Your task to perform on an android device: toggle improve location accuracy Image 0: 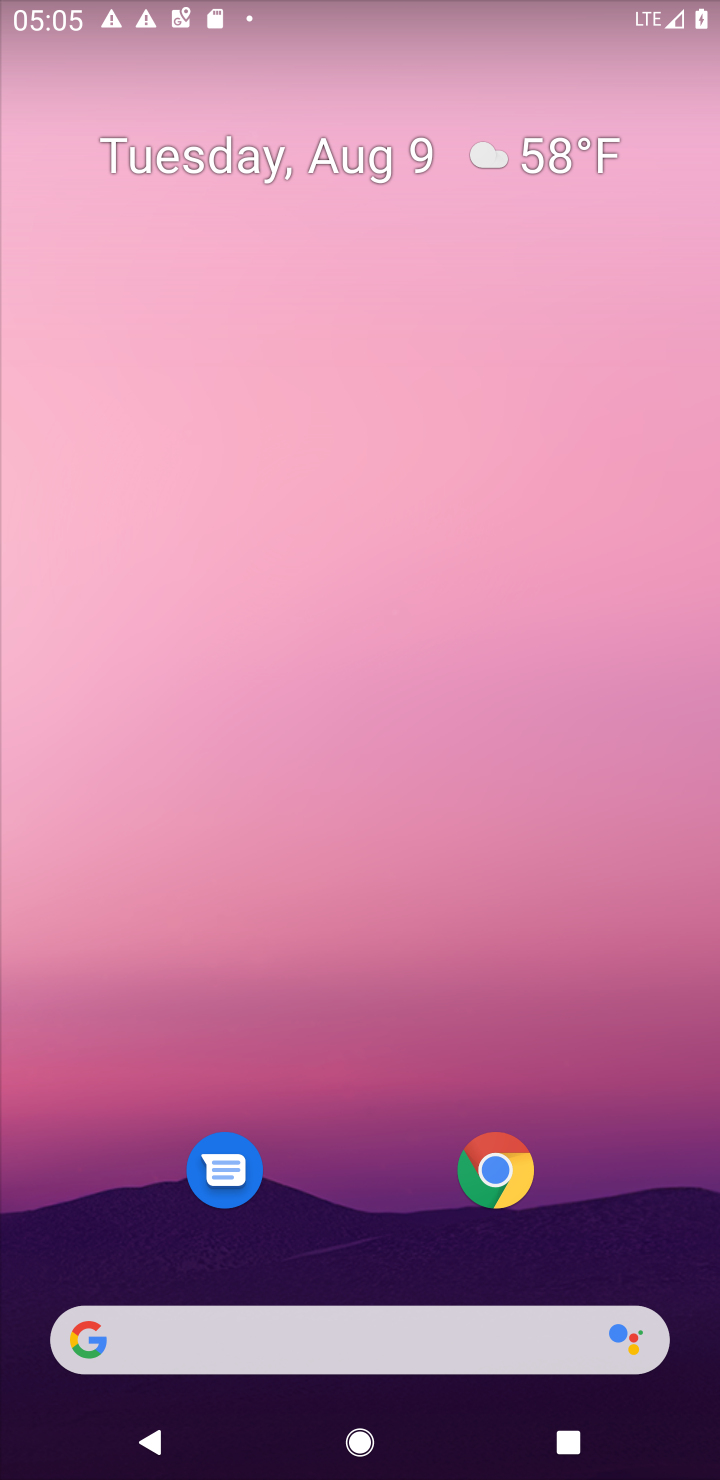
Step 0: press home button
Your task to perform on an android device: toggle improve location accuracy Image 1: 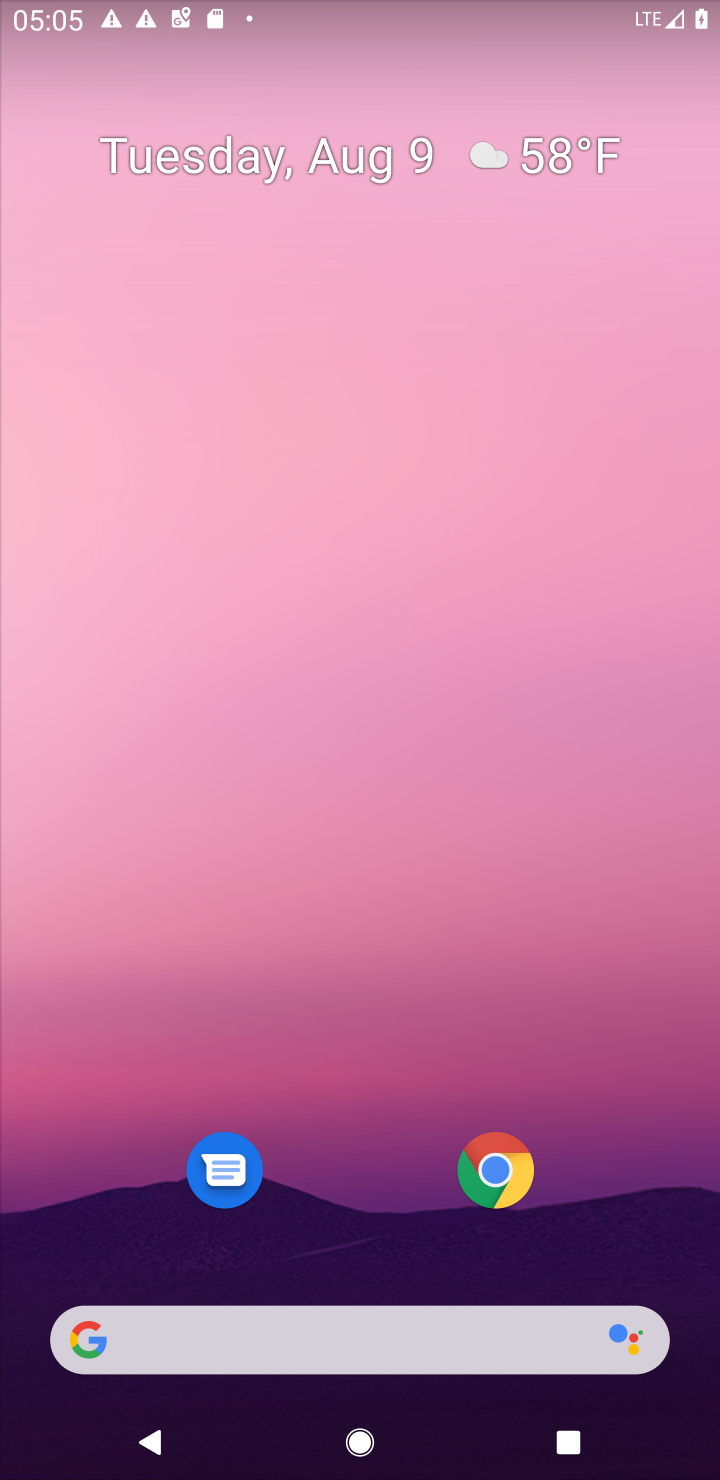
Step 1: drag from (418, 1134) to (394, 0)
Your task to perform on an android device: toggle improve location accuracy Image 2: 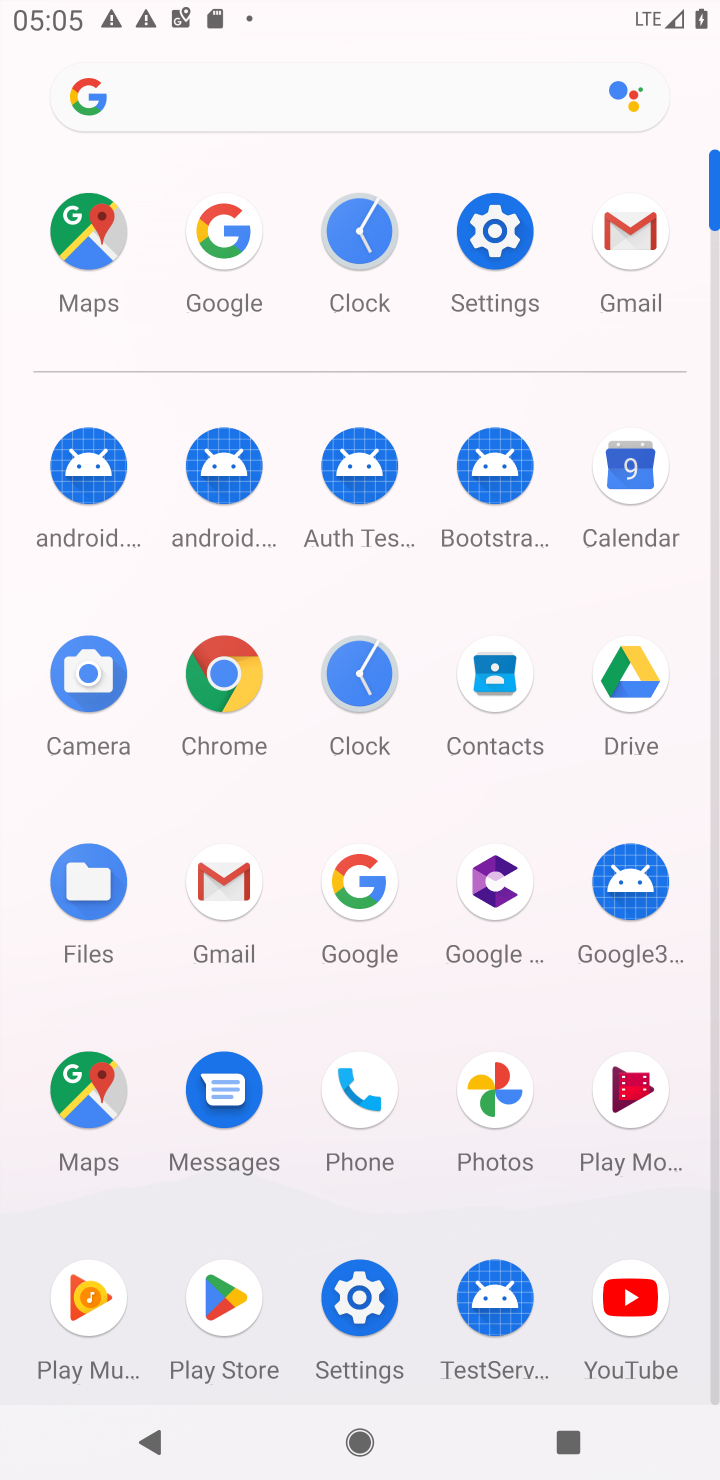
Step 2: click (505, 231)
Your task to perform on an android device: toggle improve location accuracy Image 3: 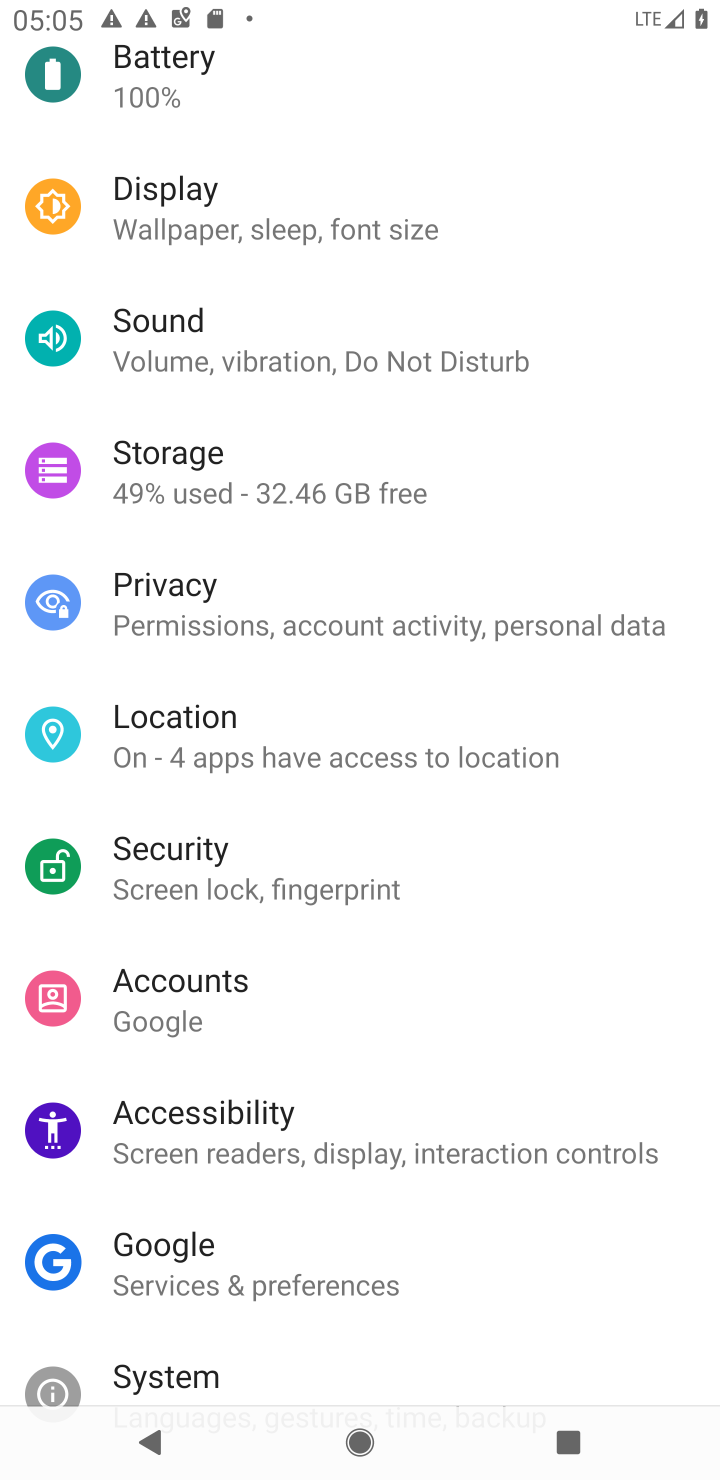
Step 3: click (162, 729)
Your task to perform on an android device: toggle improve location accuracy Image 4: 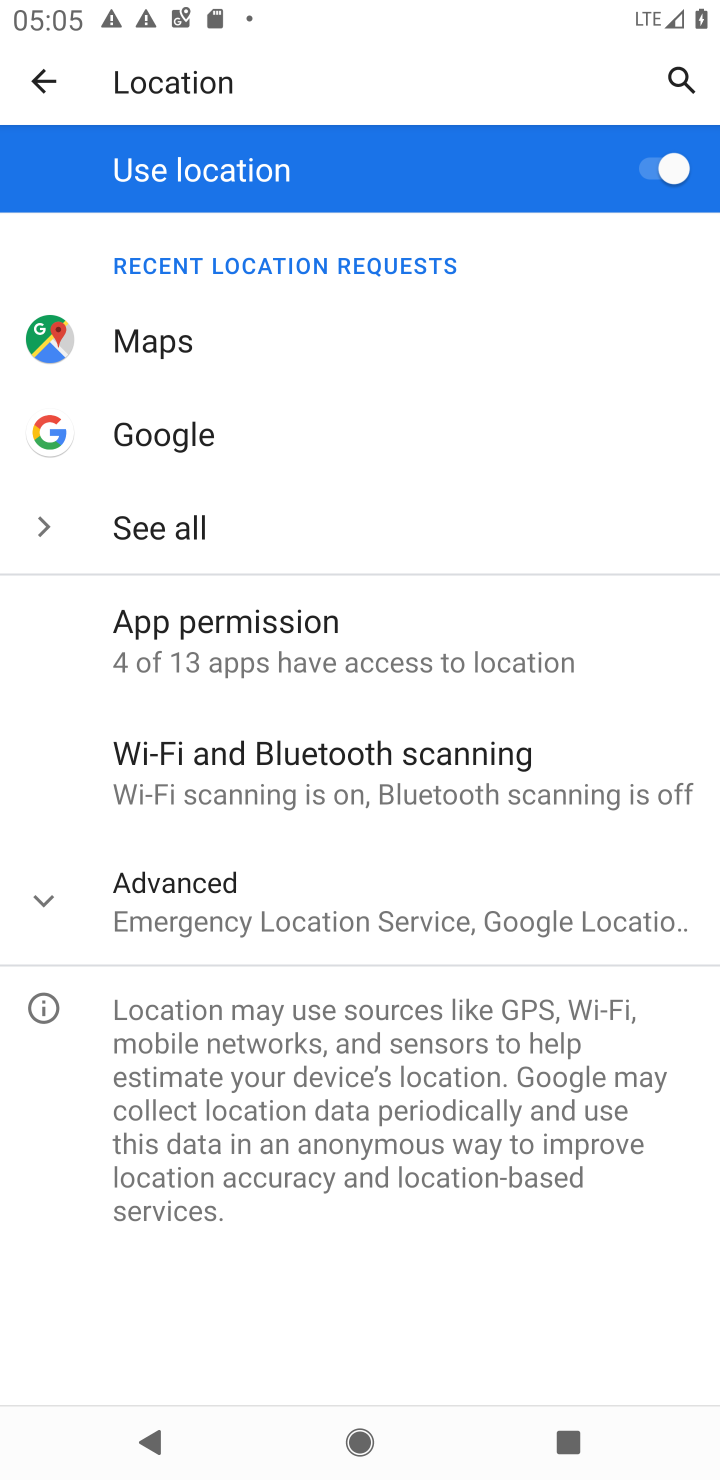
Step 4: click (198, 906)
Your task to perform on an android device: toggle improve location accuracy Image 5: 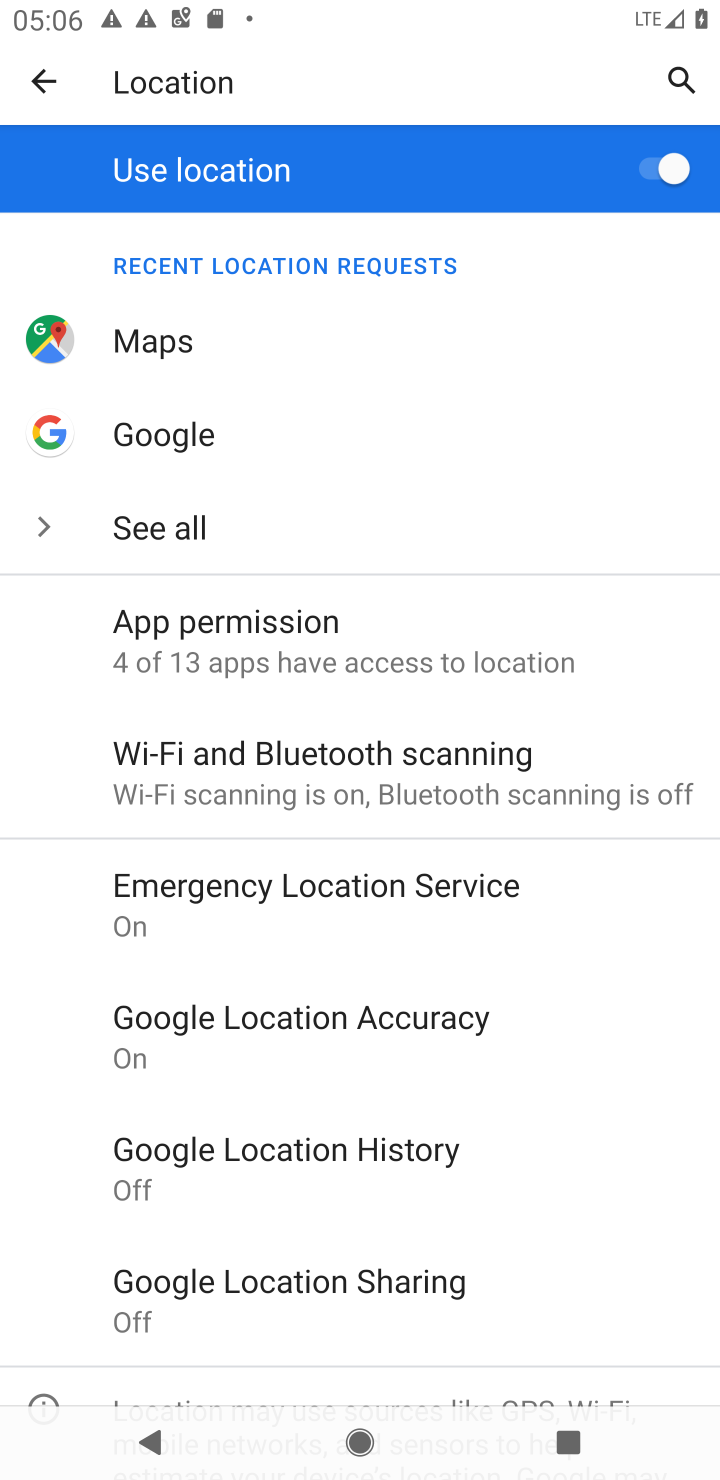
Step 5: click (324, 1015)
Your task to perform on an android device: toggle improve location accuracy Image 6: 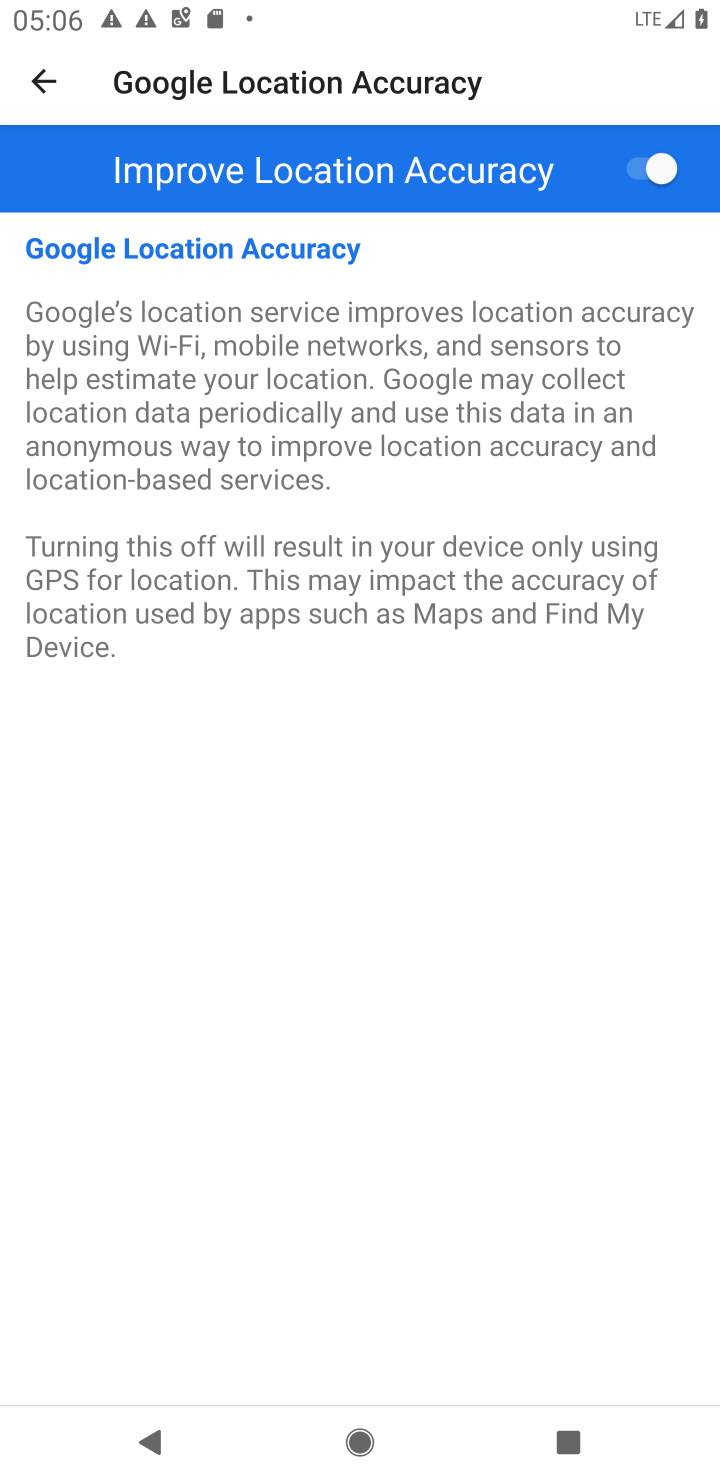
Step 6: click (667, 165)
Your task to perform on an android device: toggle improve location accuracy Image 7: 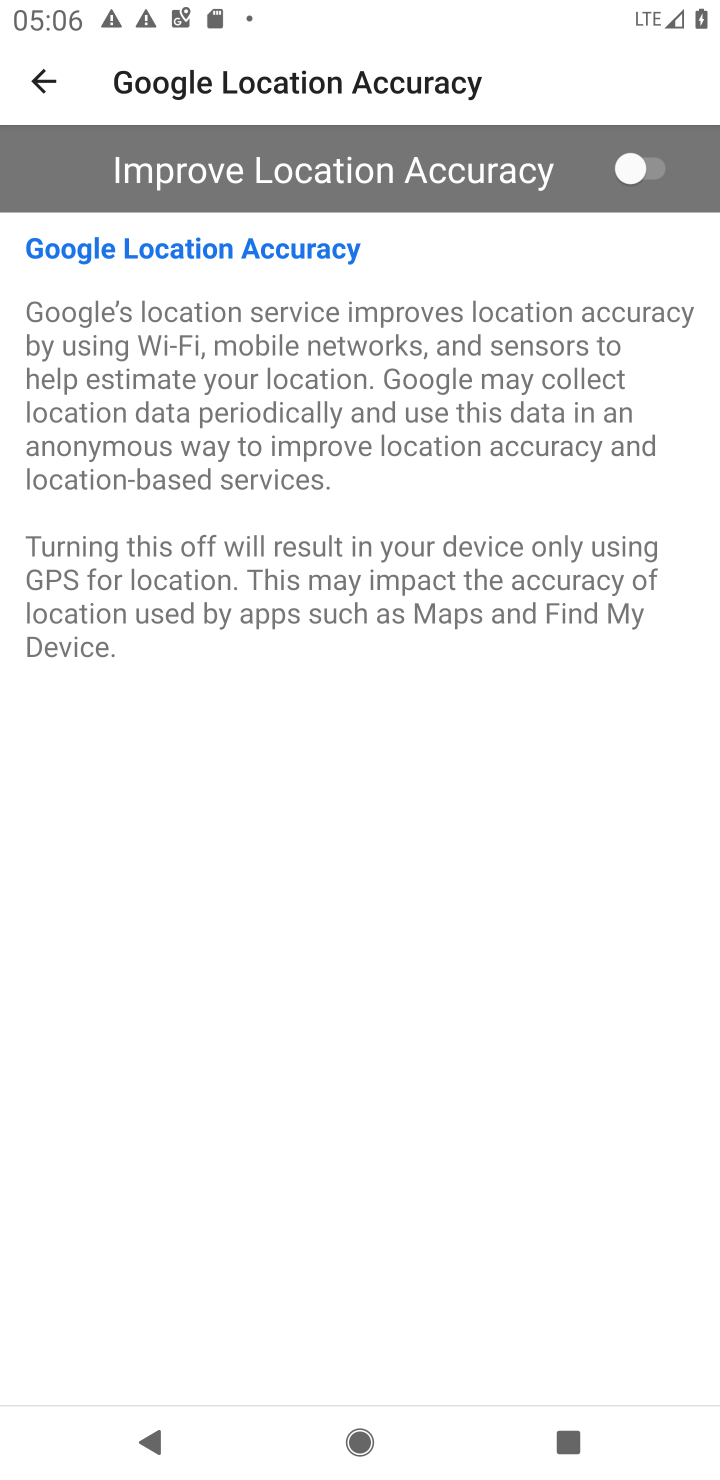
Step 7: task complete